Your task to perform on an android device: Do I have any events today? Image 0: 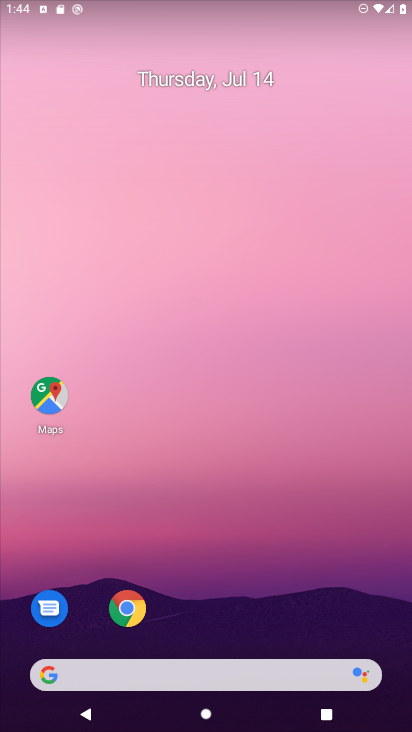
Step 0: drag from (350, 630) to (302, 52)
Your task to perform on an android device: Do I have any events today? Image 1: 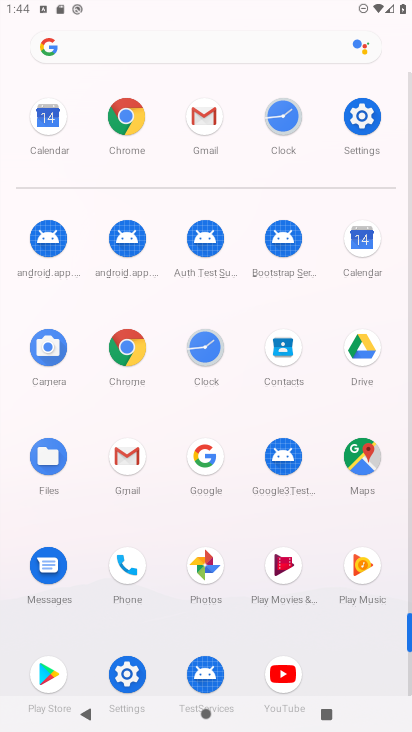
Step 1: click (361, 239)
Your task to perform on an android device: Do I have any events today? Image 2: 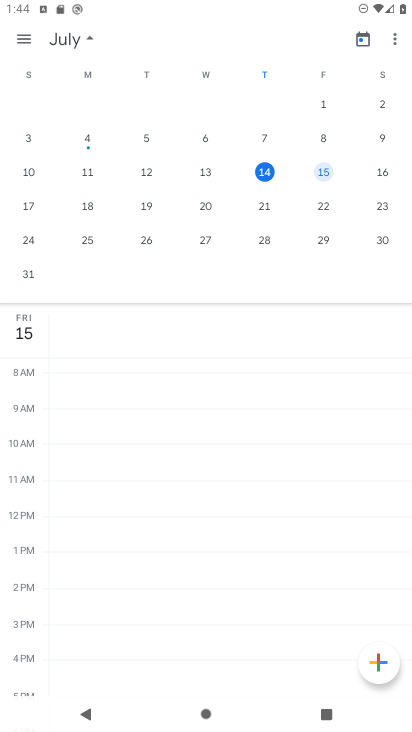
Step 2: click (16, 29)
Your task to perform on an android device: Do I have any events today? Image 3: 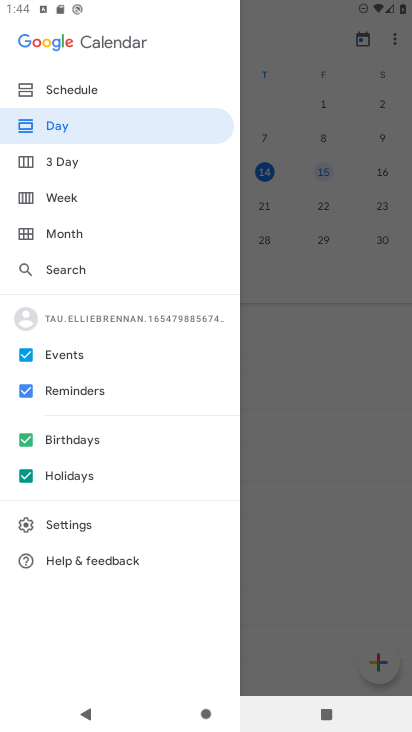
Step 3: click (268, 205)
Your task to perform on an android device: Do I have any events today? Image 4: 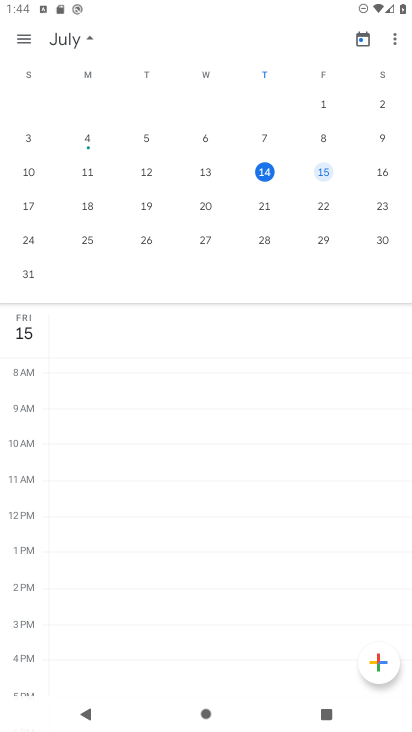
Step 4: drag from (188, 529) to (160, 501)
Your task to perform on an android device: Do I have any events today? Image 5: 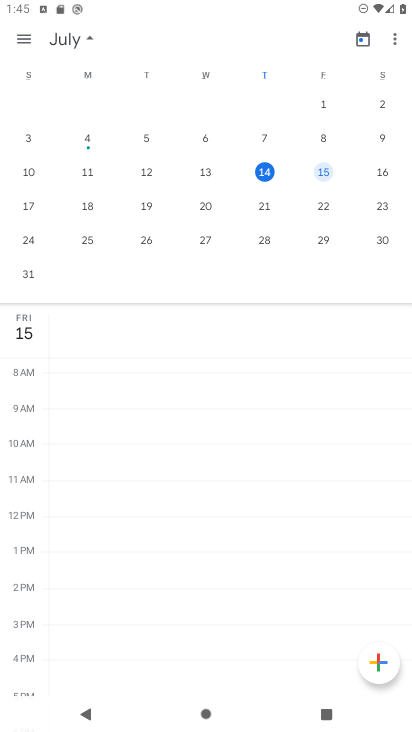
Step 5: click (262, 167)
Your task to perform on an android device: Do I have any events today? Image 6: 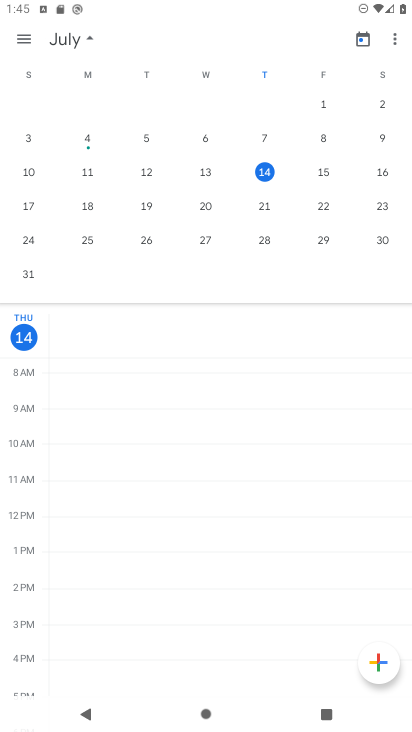
Step 6: task complete